Your task to perform on an android device: Go to location settings Image 0: 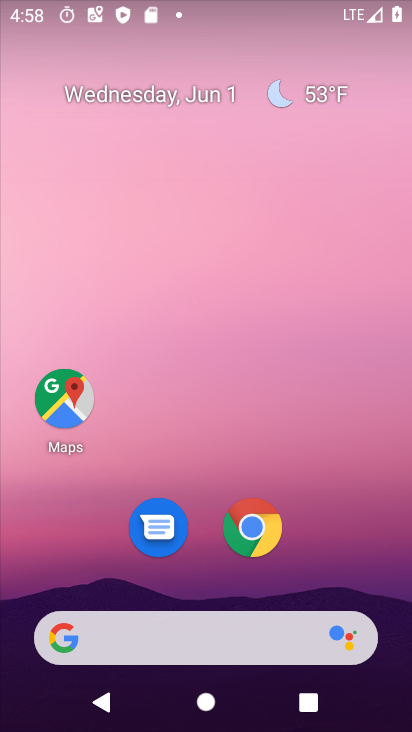
Step 0: drag from (316, 459) to (335, 30)
Your task to perform on an android device: Go to location settings Image 1: 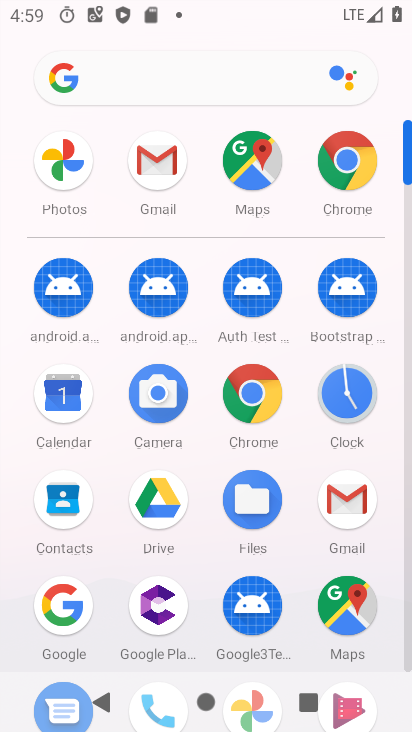
Step 1: drag from (197, 440) to (204, 61)
Your task to perform on an android device: Go to location settings Image 2: 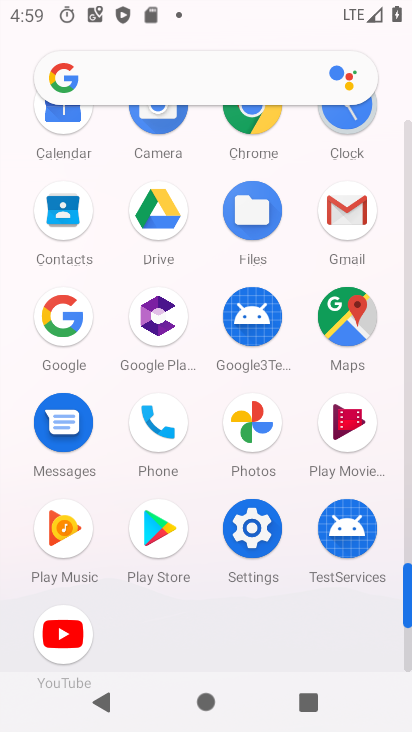
Step 2: click (263, 524)
Your task to perform on an android device: Go to location settings Image 3: 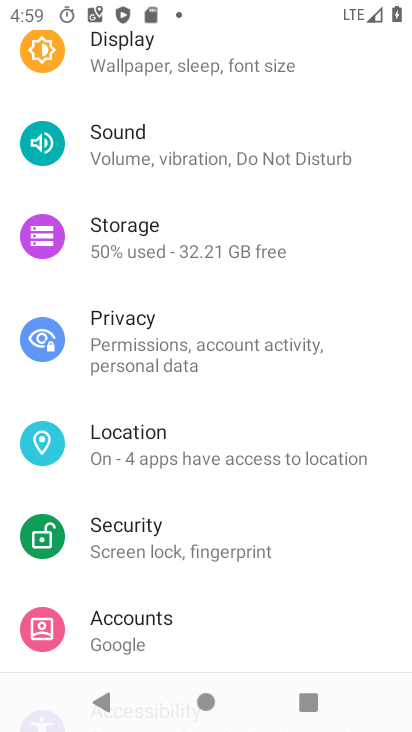
Step 3: click (150, 439)
Your task to perform on an android device: Go to location settings Image 4: 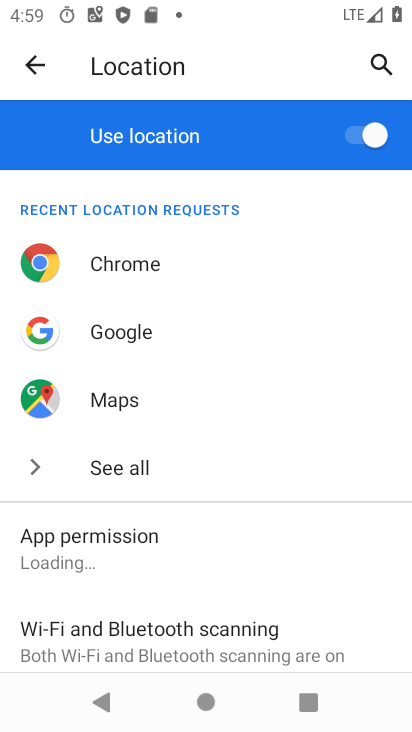
Step 4: task complete